Your task to perform on an android device: turn pop-ups off in chrome Image 0: 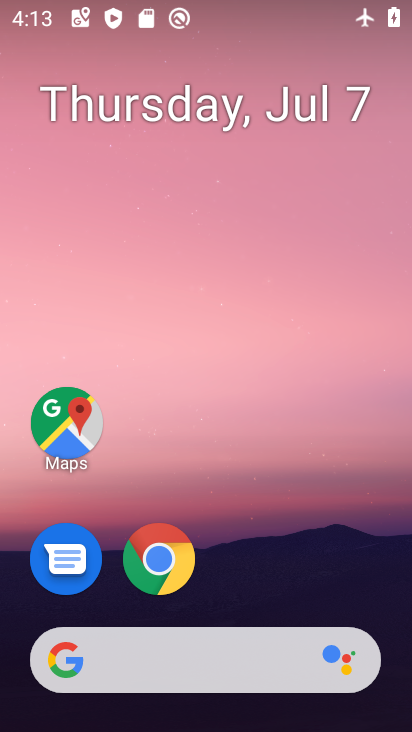
Step 0: drag from (230, 555) to (268, 0)
Your task to perform on an android device: turn pop-ups off in chrome Image 1: 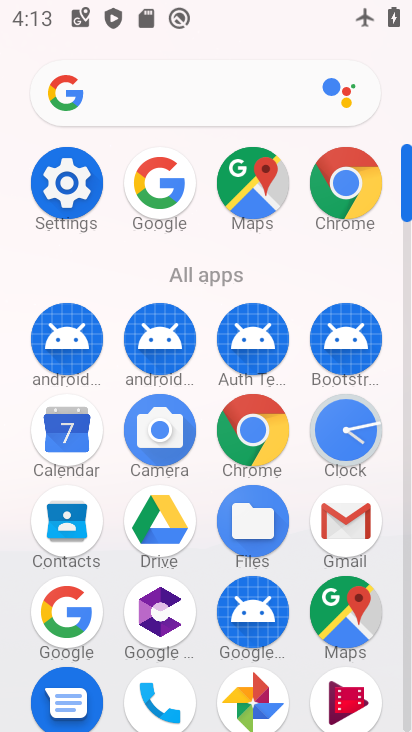
Step 1: click (339, 180)
Your task to perform on an android device: turn pop-ups off in chrome Image 2: 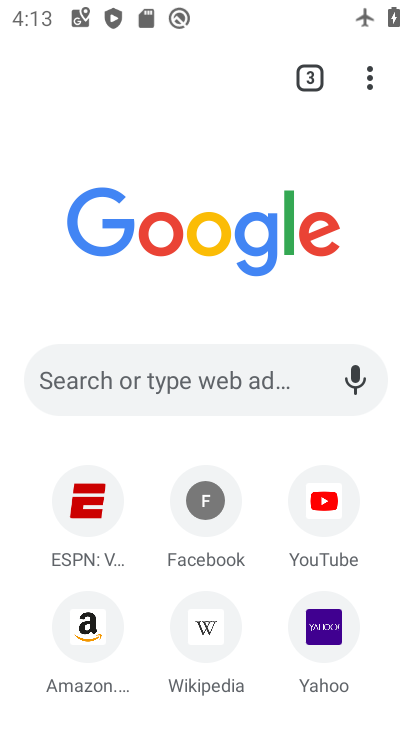
Step 2: drag from (376, 77) to (101, 616)
Your task to perform on an android device: turn pop-ups off in chrome Image 3: 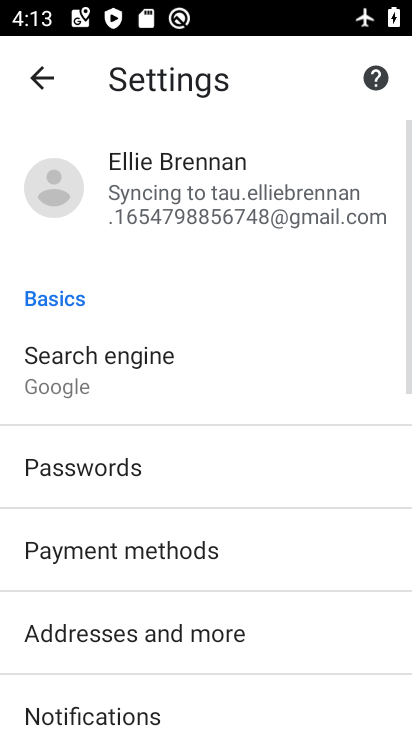
Step 3: drag from (106, 650) to (205, 81)
Your task to perform on an android device: turn pop-ups off in chrome Image 4: 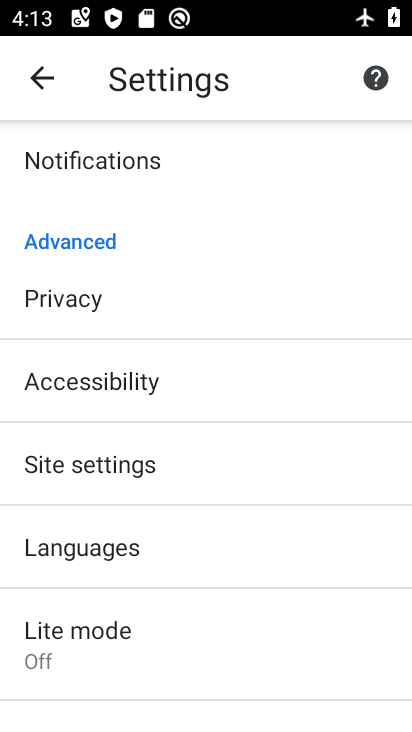
Step 4: click (80, 476)
Your task to perform on an android device: turn pop-ups off in chrome Image 5: 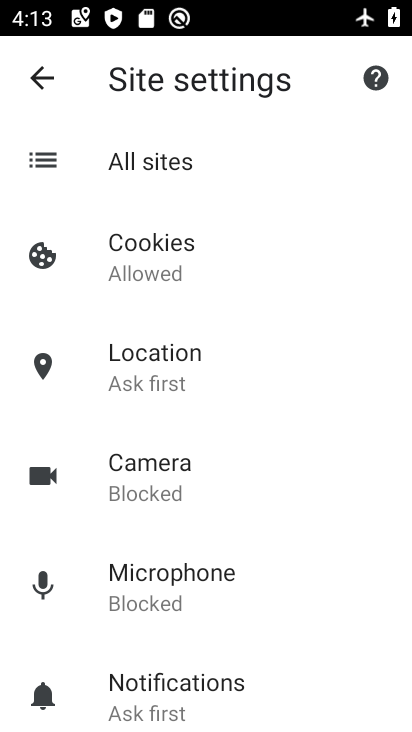
Step 5: drag from (172, 679) to (256, 116)
Your task to perform on an android device: turn pop-ups off in chrome Image 6: 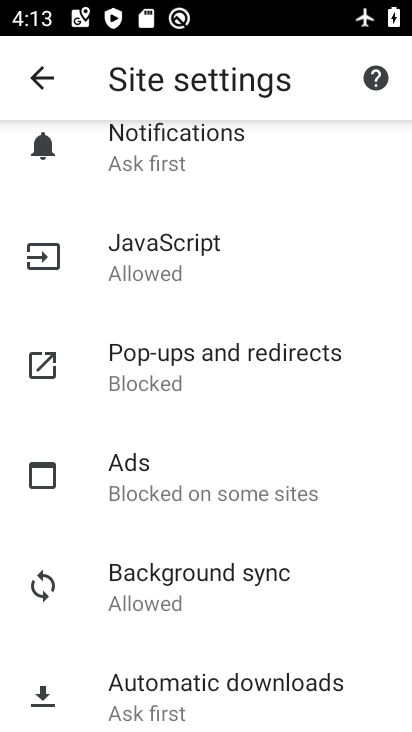
Step 6: click (180, 392)
Your task to perform on an android device: turn pop-ups off in chrome Image 7: 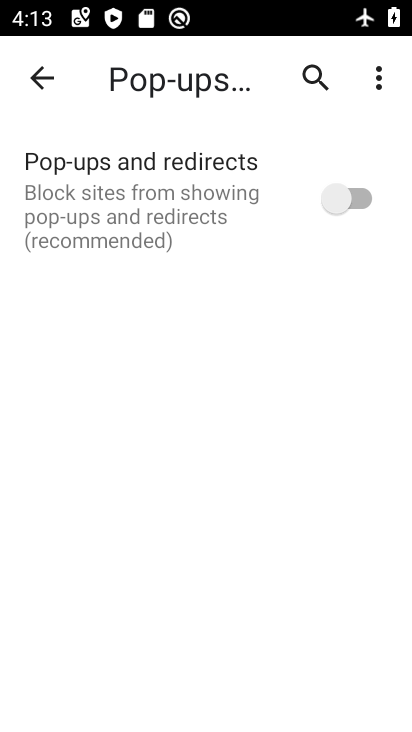
Step 7: task complete